Your task to perform on an android device: change the clock style Image 0: 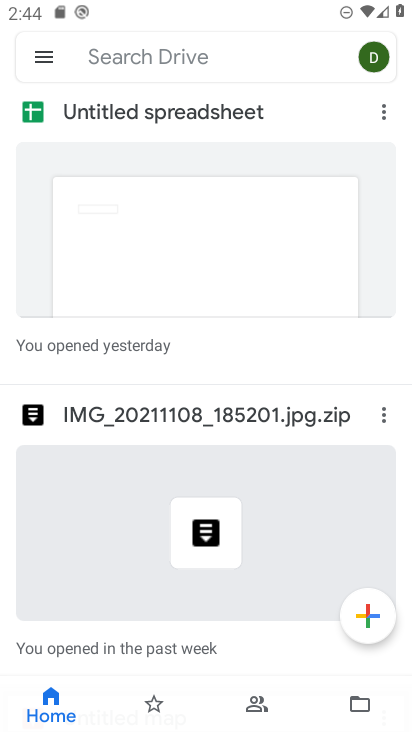
Step 0: press home button
Your task to perform on an android device: change the clock style Image 1: 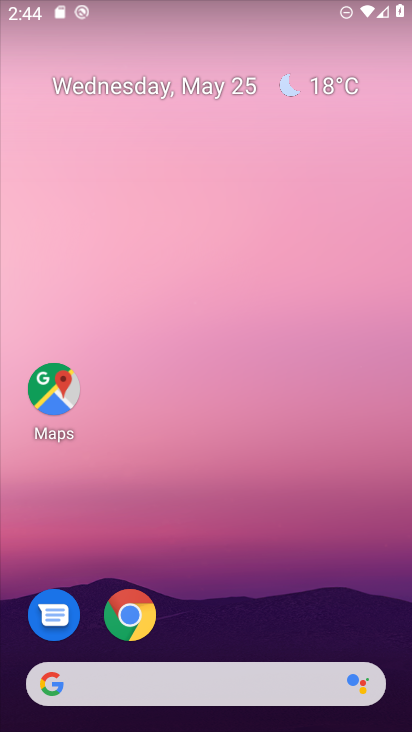
Step 1: drag from (254, 548) to (329, 11)
Your task to perform on an android device: change the clock style Image 2: 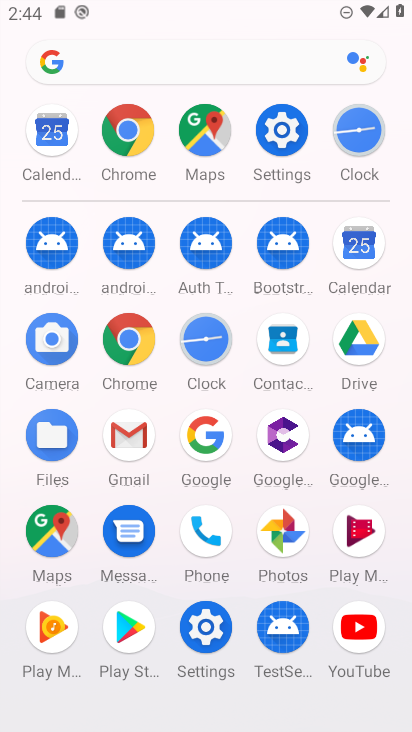
Step 2: click (356, 119)
Your task to perform on an android device: change the clock style Image 3: 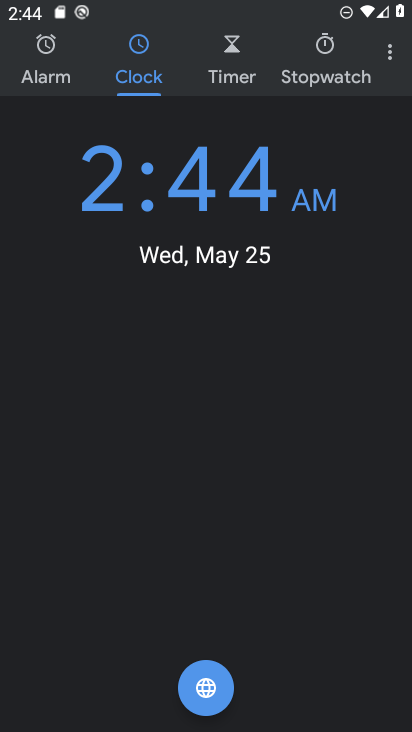
Step 3: click (384, 62)
Your task to perform on an android device: change the clock style Image 4: 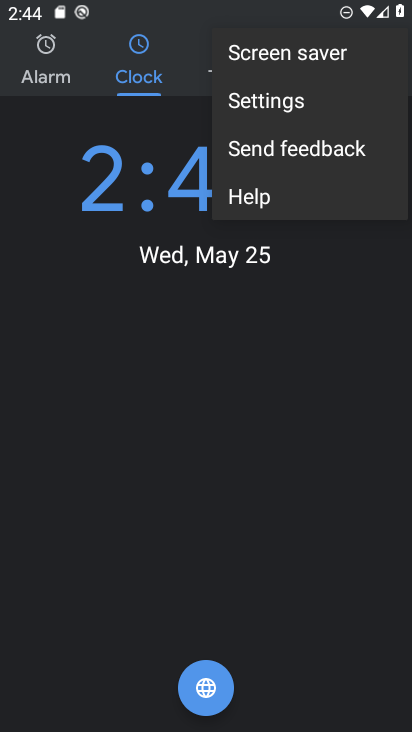
Step 4: click (348, 100)
Your task to perform on an android device: change the clock style Image 5: 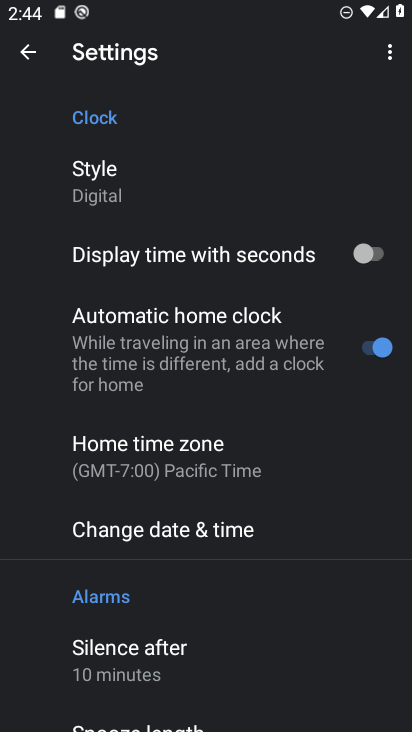
Step 5: click (184, 195)
Your task to perform on an android device: change the clock style Image 6: 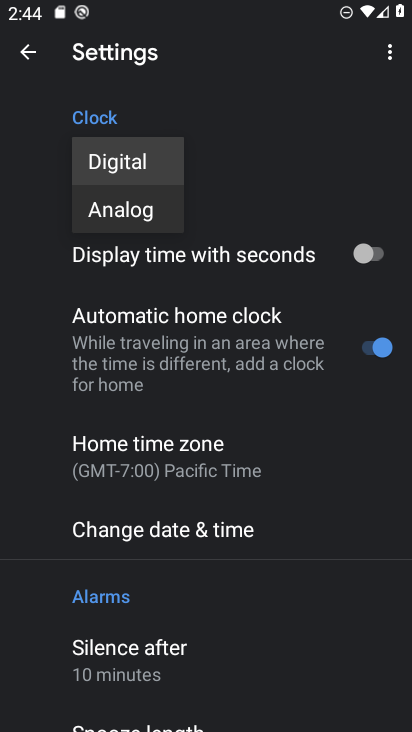
Step 6: click (170, 210)
Your task to perform on an android device: change the clock style Image 7: 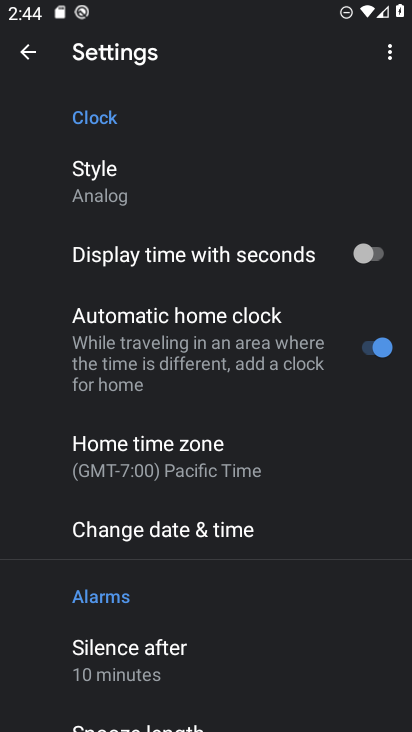
Step 7: click (28, 52)
Your task to perform on an android device: change the clock style Image 8: 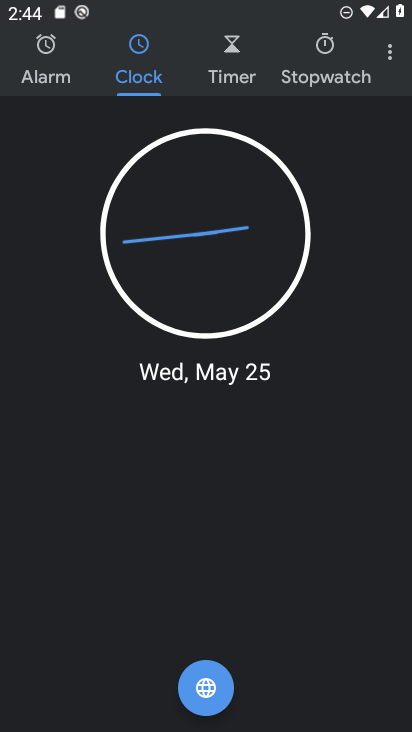
Step 8: task complete